Your task to perform on an android device: check android version Image 0: 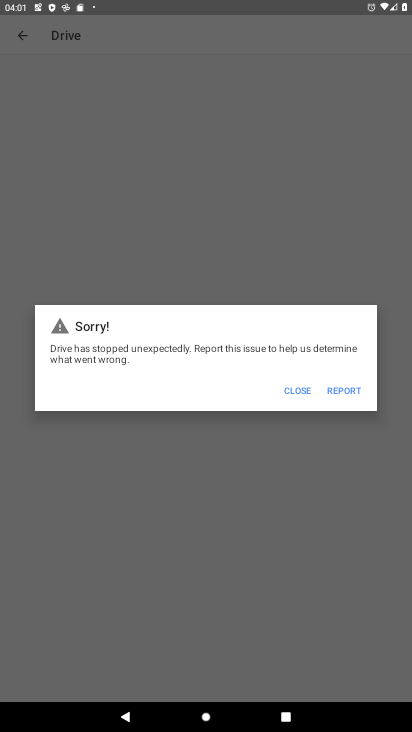
Step 0: press home button
Your task to perform on an android device: check android version Image 1: 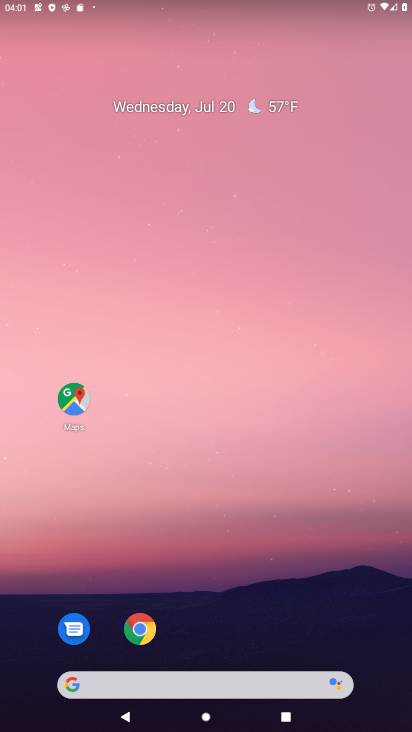
Step 1: drag from (369, 673) to (332, 245)
Your task to perform on an android device: check android version Image 2: 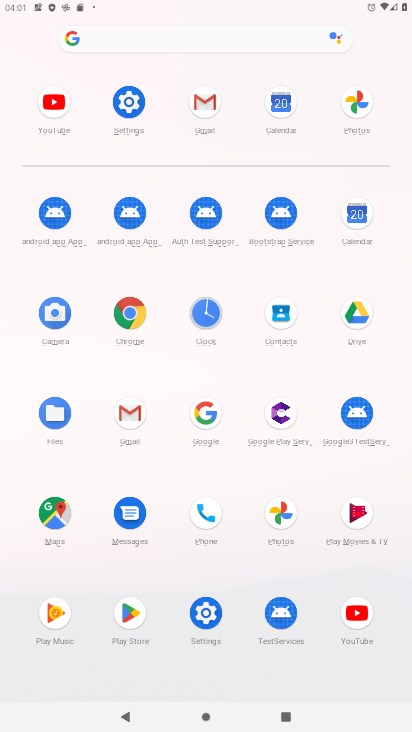
Step 2: click (205, 616)
Your task to perform on an android device: check android version Image 3: 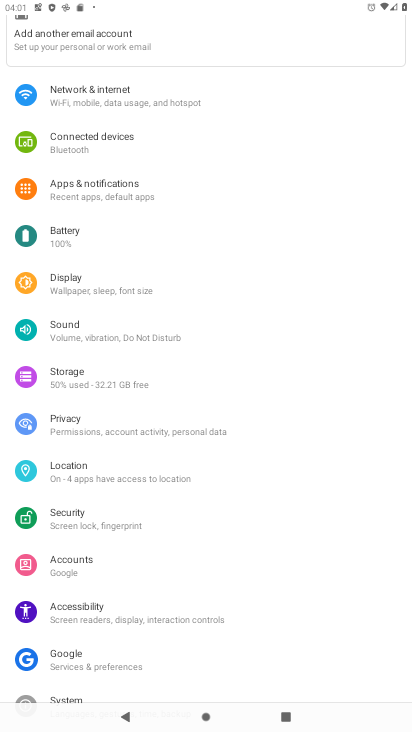
Step 3: drag from (256, 631) to (271, 202)
Your task to perform on an android device: check android version Image 4: 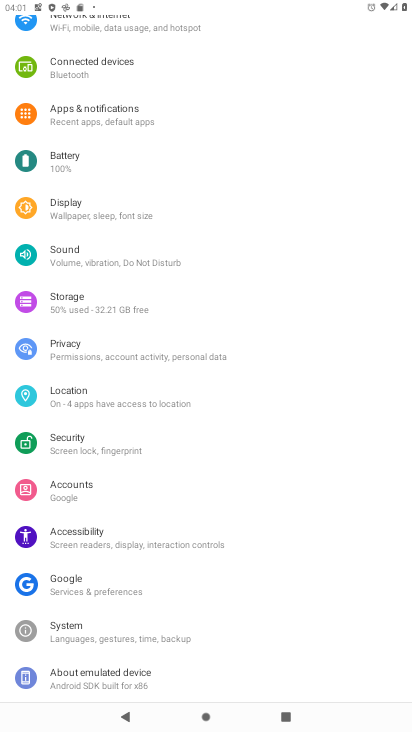
Step 4: click (112, 669)
Your task to perform on an android device: check android version Image 5: 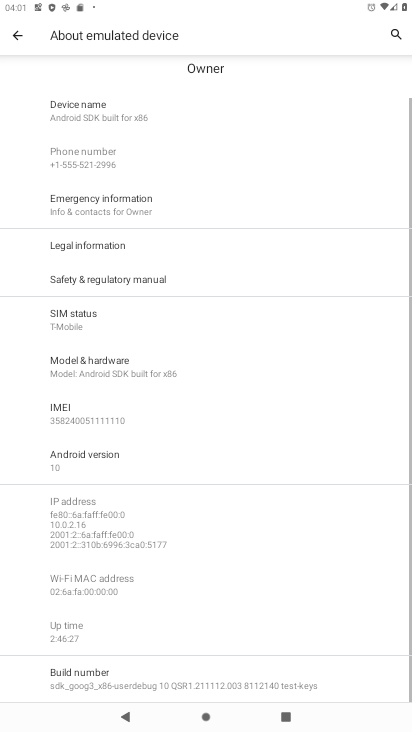
Step 5: click (65, 455)
Your task to perform on an android device: check android version Image 6: 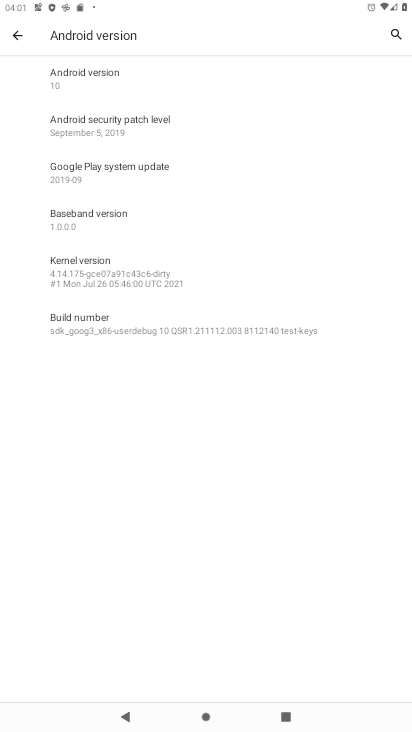
Step 6: task complete